Your task to perform on an android device: turn off sleep mode Image 0: 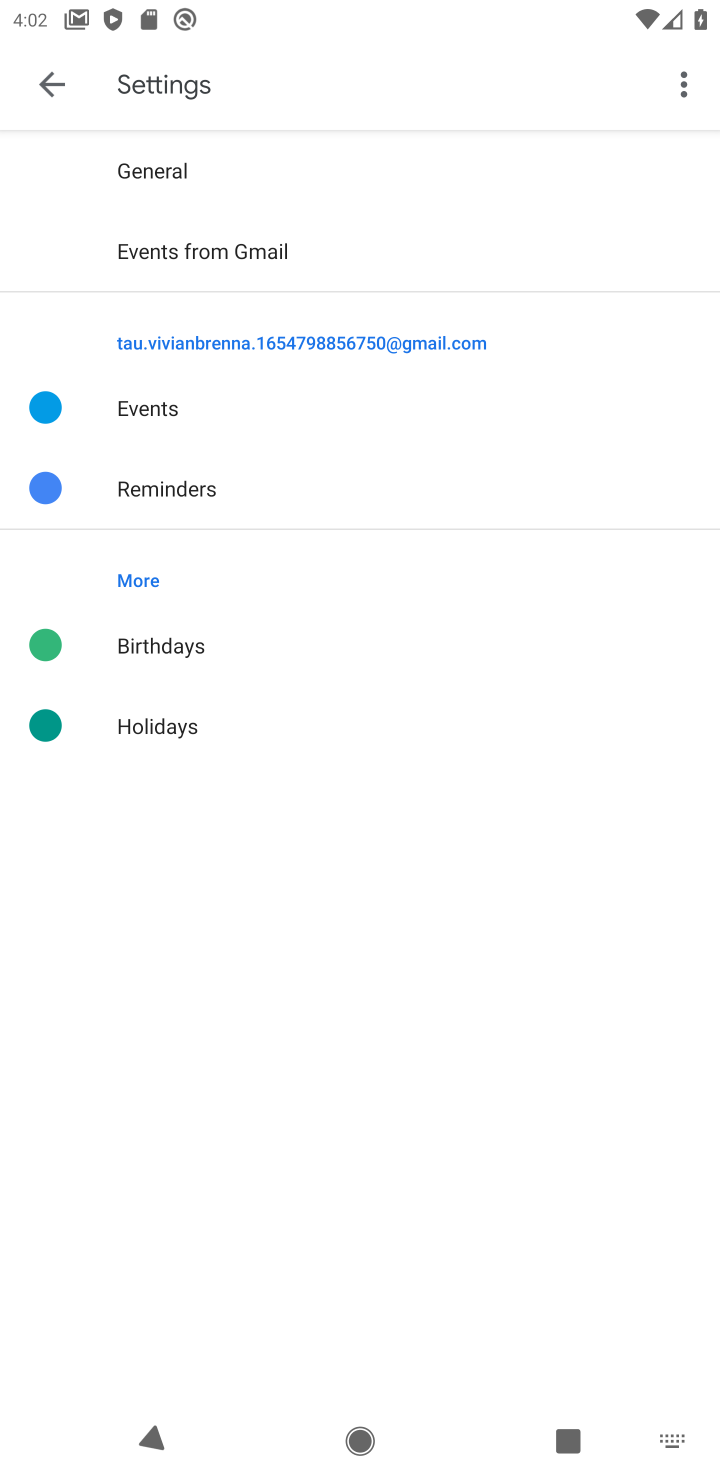
Step 0: press home button
Your task to perform on an android device: turn off sleep mode Image 1: 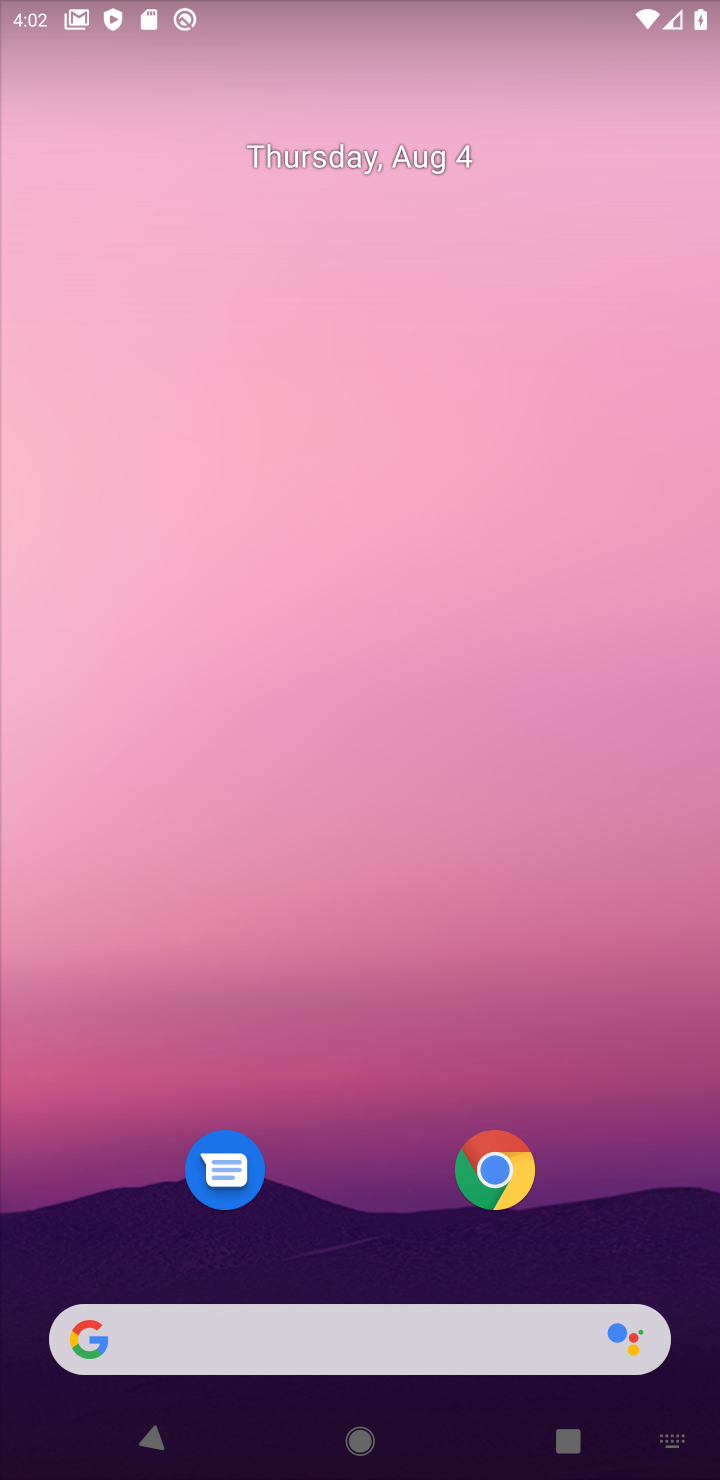
Step 1: drag from (674, 1250) to (508, 349)
Your task to perform on an android device: turn off sleep mode Image 2: 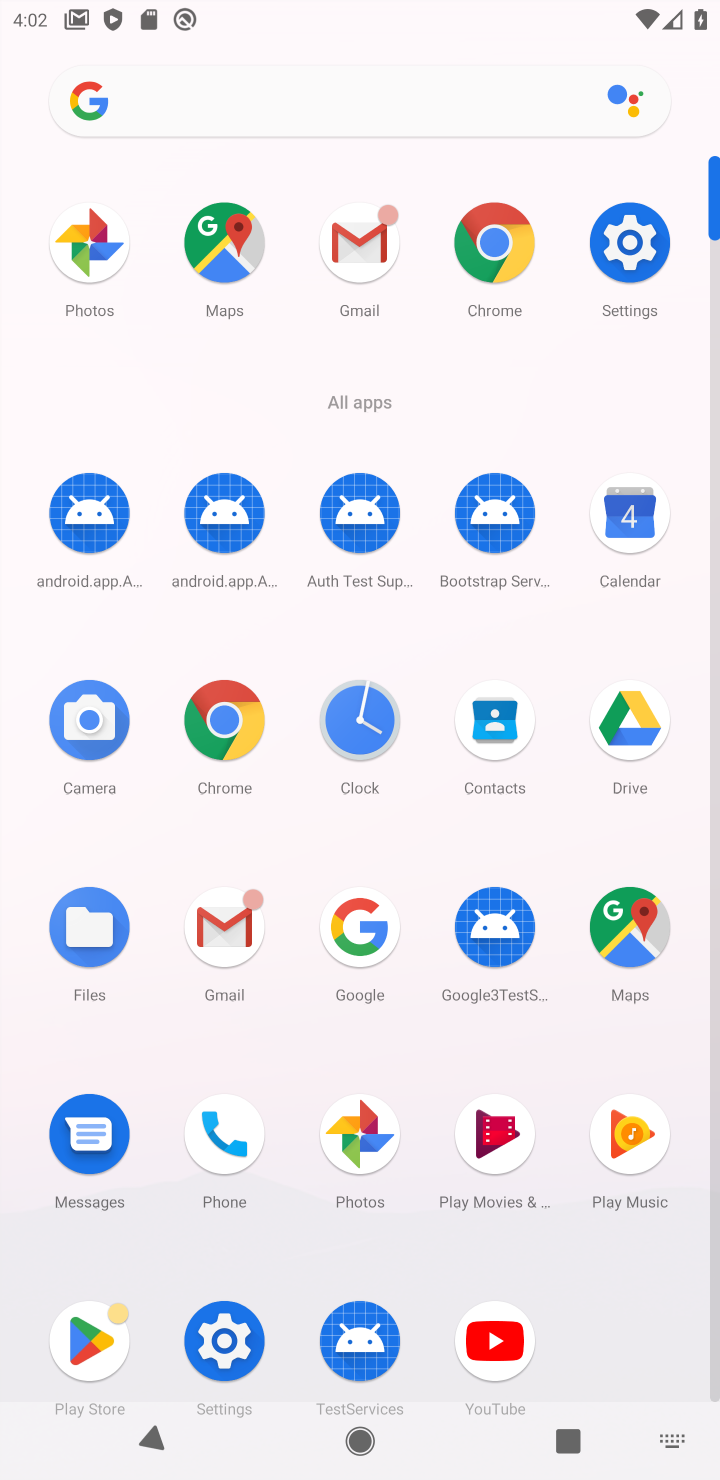
Step 2: click (661, 234)
Your task to perform on an android device: turn off sleep mode Image 3: 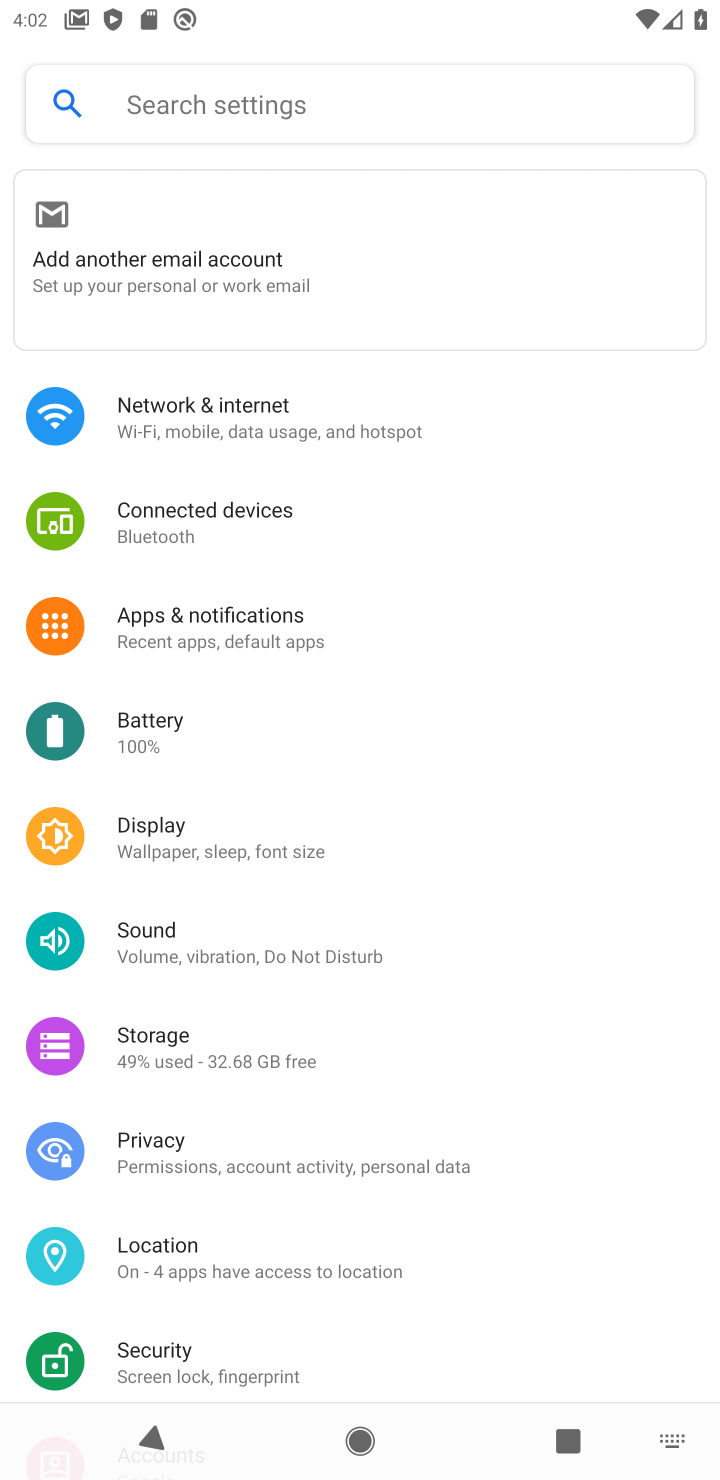
Step 3: click (313, 836)
Your task to perform on an android device: turn off sleep mode Image 4: 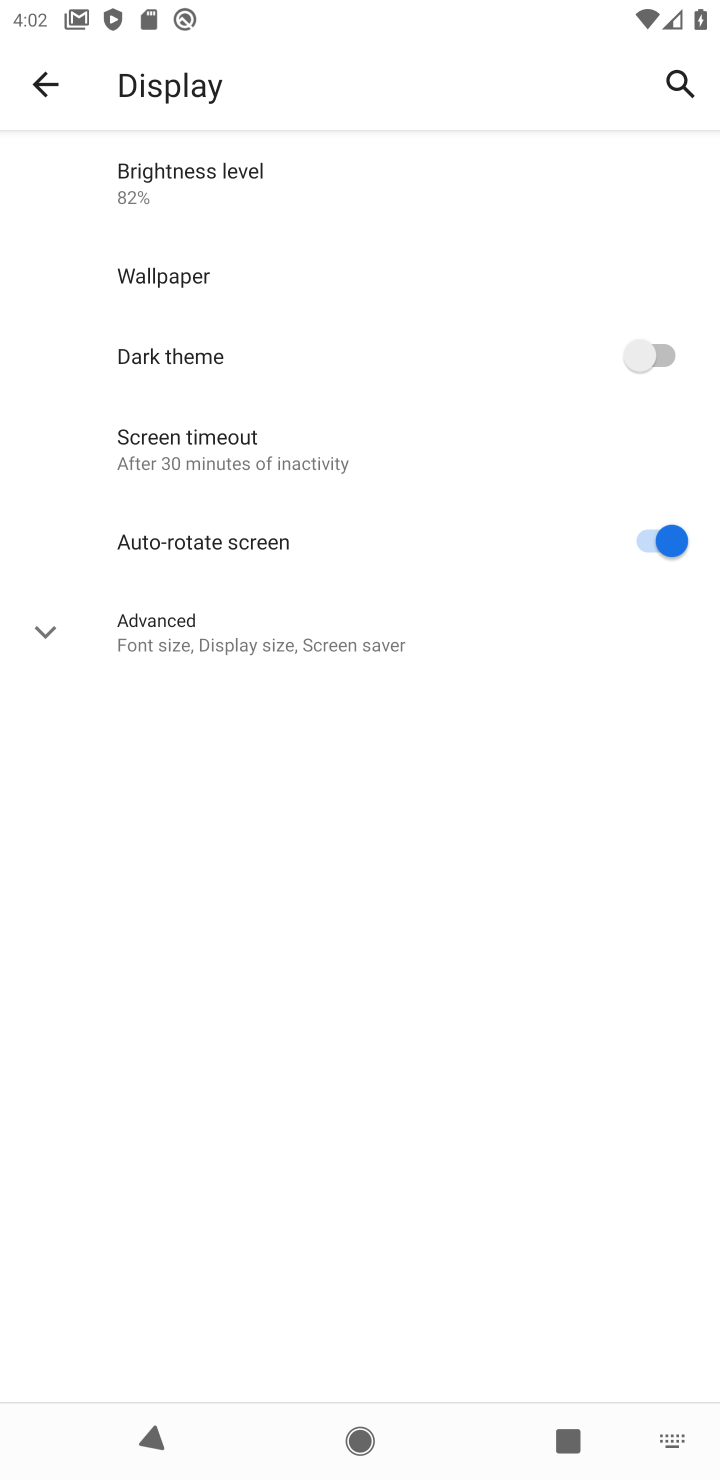
Step 4: click (509, 615)
Your task to perform on an android device: turn off sleep mode Image 5: 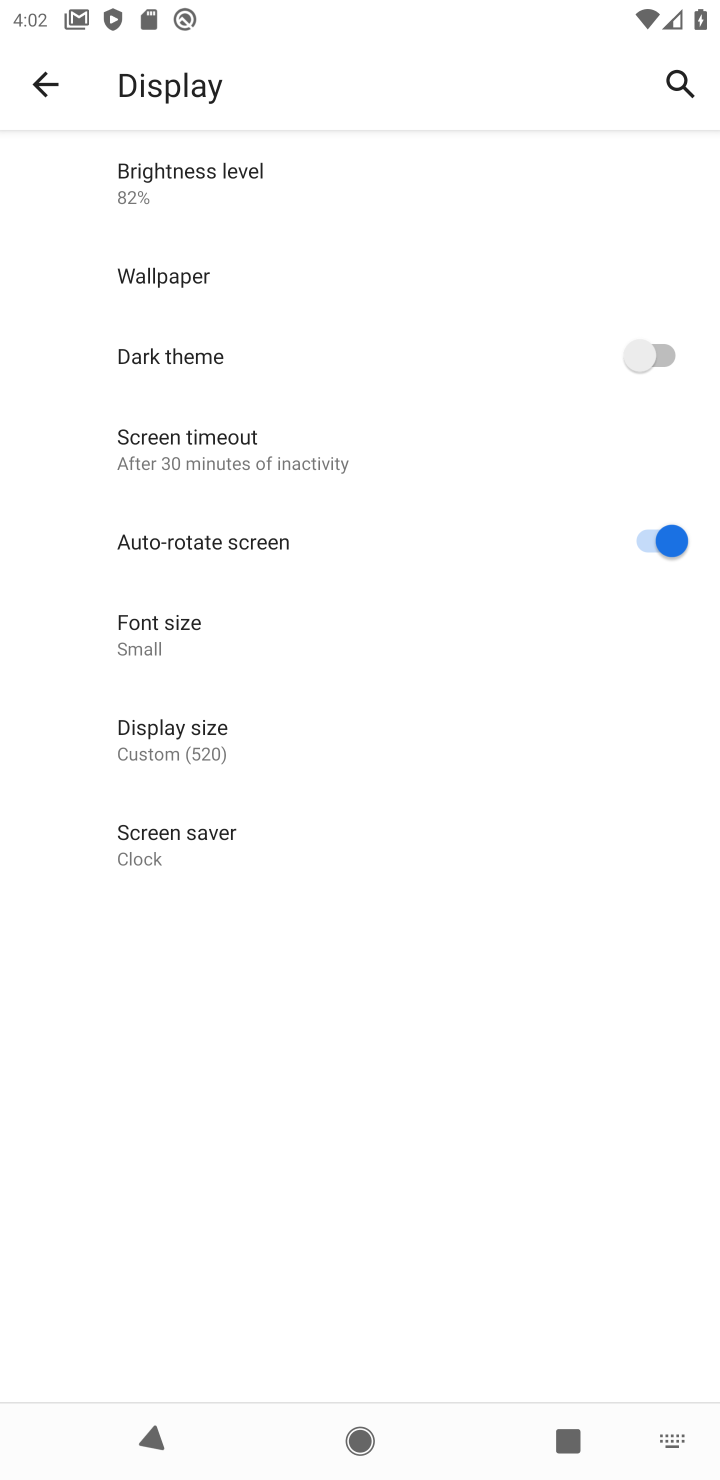
Step 5: task complete